Your task to perform on an android device: Open wifi settings Image 0: 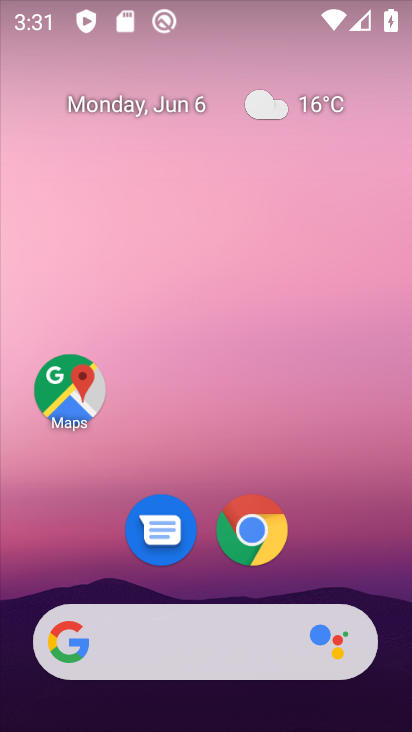
Step 0: press home button
Your task to perform on an android device: Open wifi settings Image 1: 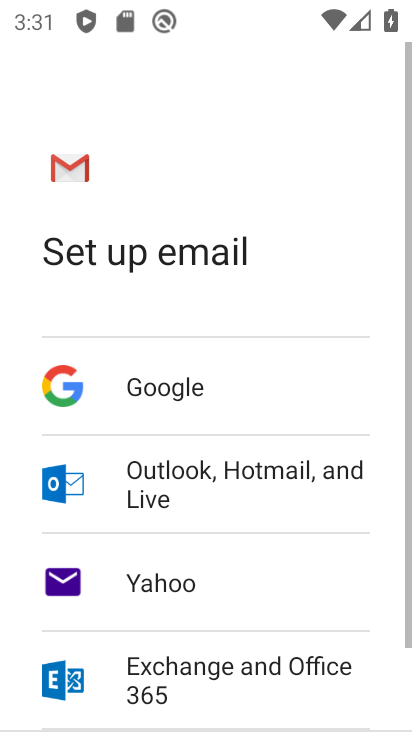
Step 1: drag from (370, 356) to (385, 52)
Your task to perform on an android device: Open wifi settings Image 2: 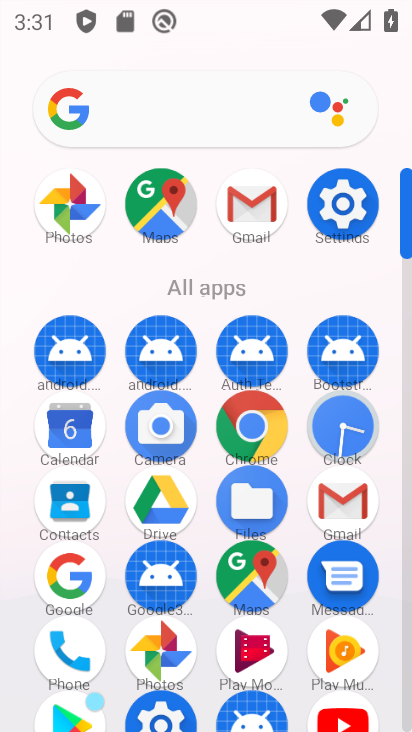
Step 2: click (334, 206)
Your task to perform on an android device: Open wifi settings Image 3: 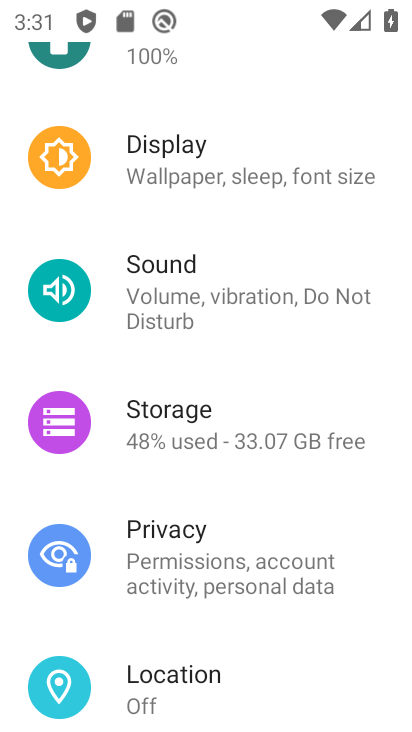
Step 3: drag from (287, 165) to (225, 615)
Your task to perform on an android device: Open wifi settings Image 4: 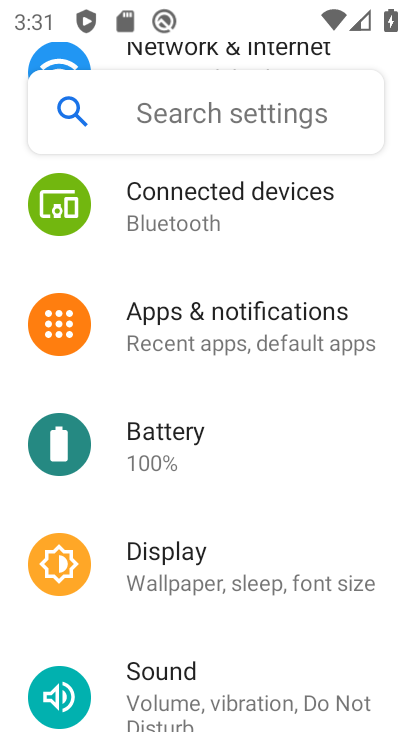
Step 4: drag from (314, 229) to (240, 593)
Your task to perform on an android device: Open wifi settings Image 5: 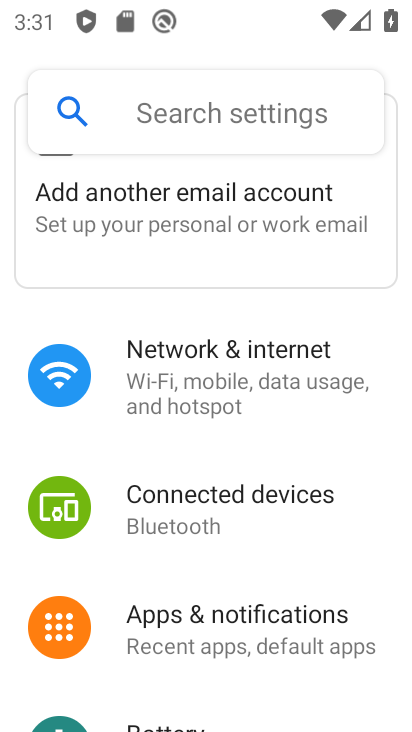
Step 5: click (271, 370)
Your task to perform on an android device: Open wifi settings Image 6: 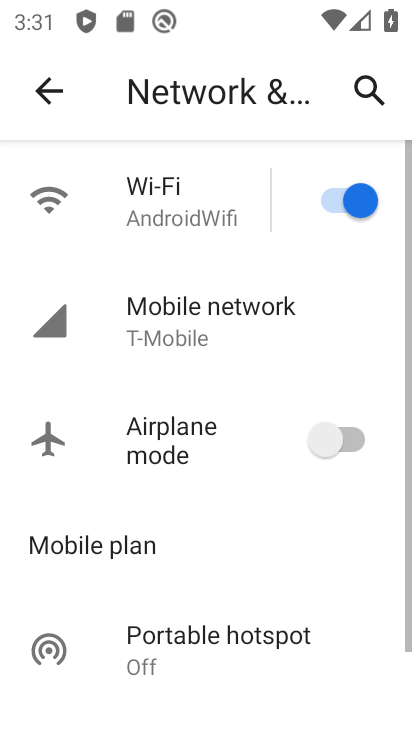
Step 6: click (167, 171)
Your task to perform on an android device: Open wifi settings Image 7: 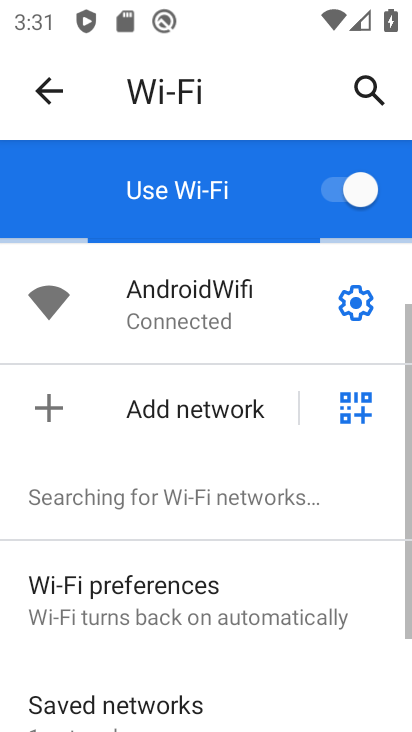
Step 7: click (362, 304)
Your task to perform on an android device: Open wifi settings Image 8: 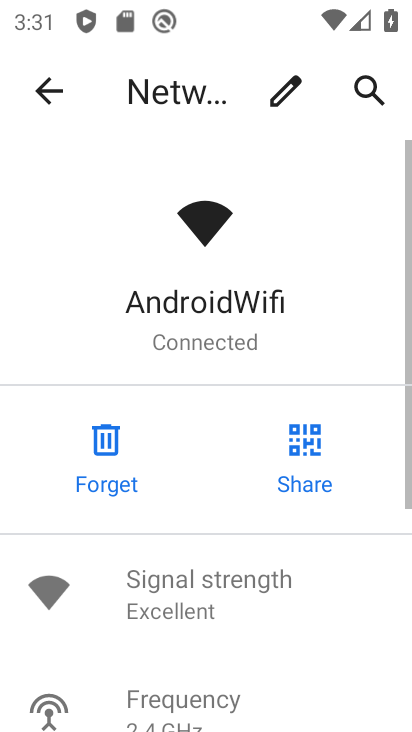
Step 8: task complete